Your task to perform on an android device: Set the phone to "Do not disturb". Image 0: 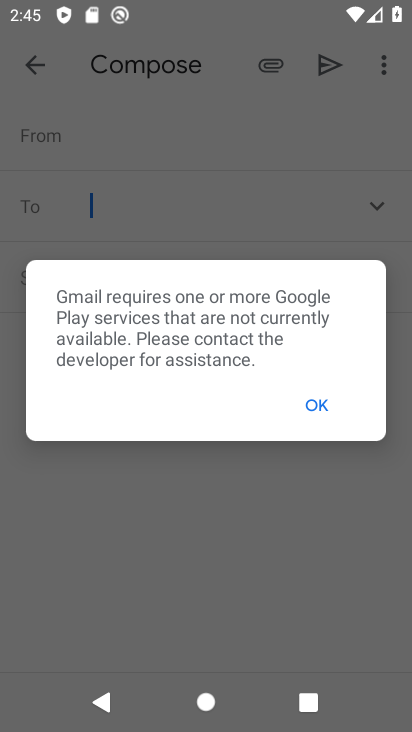
Step 0: drag from (193, 538) to (260, 273)
Your task to perform on an android device: Set the phone to "Do not disturb". Image 1: 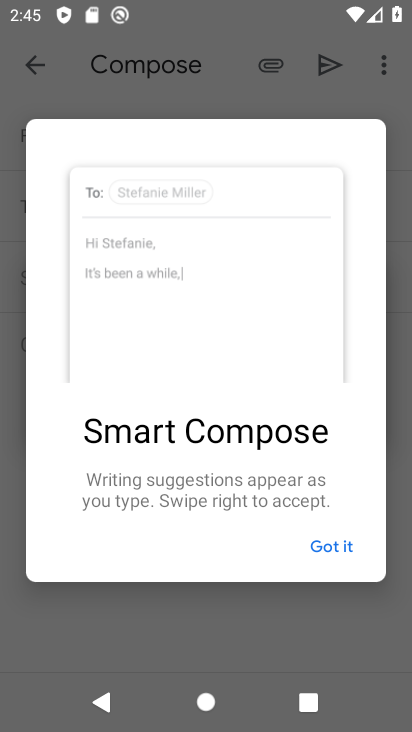
Step 1: press back button
Your task to perform on an android device: Set the phone to "Do not disturb". Image 2: 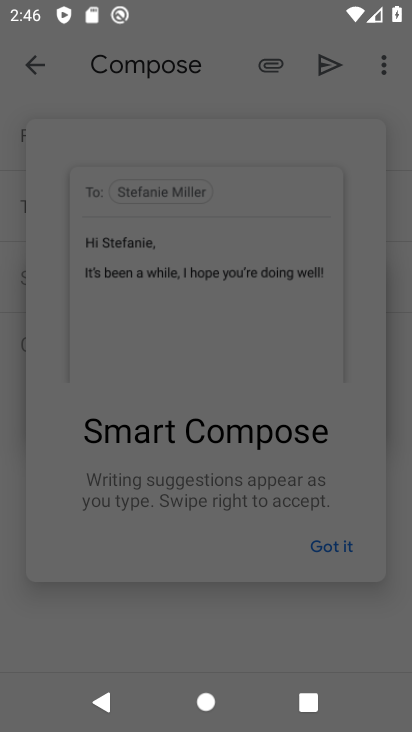
Step 2: press home button
Your task to perform on an android device: Set the phone to "Do not disturb". Image 3: 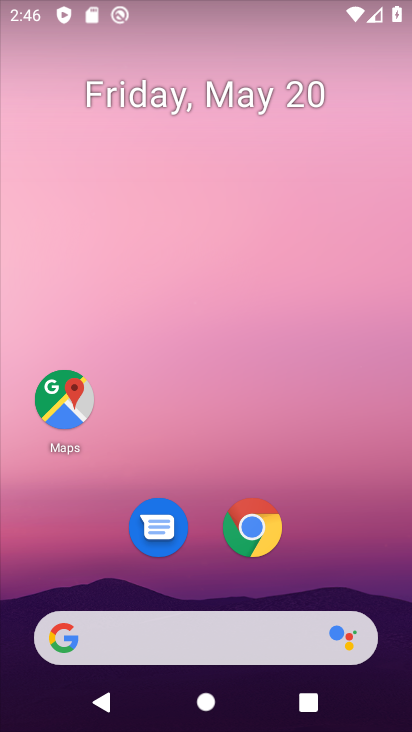
Step 3: drag from (103, 11) to (112, 428)
Your task to perform on an android device: Set the phone to "Do not disturb". Image 4: 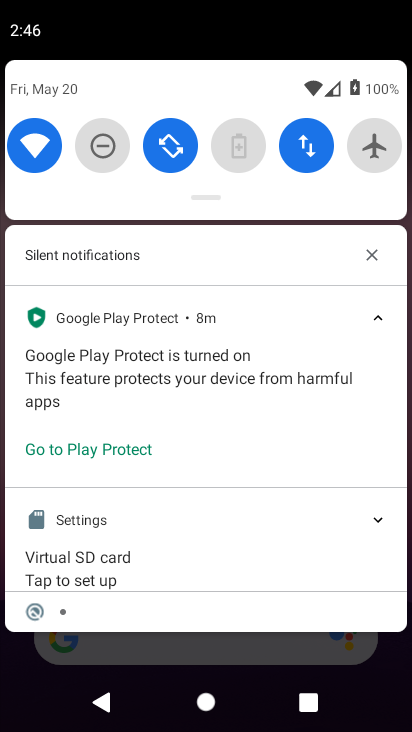
Step 4: click (94, 152)
Your task to perform on an android device: Set the phone to "Do not disturb". Image 5: 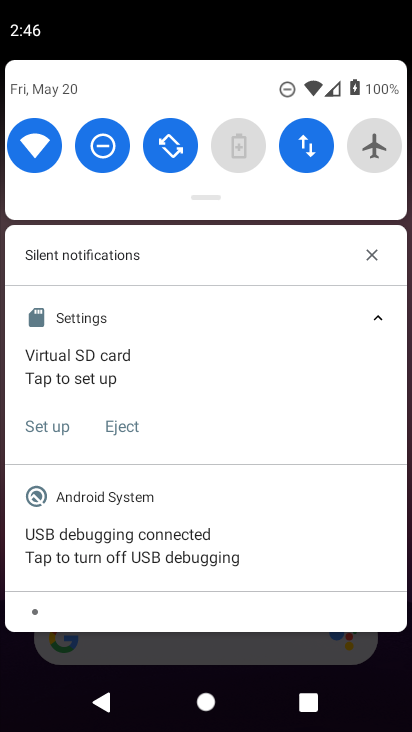
Step 5: task complete